Your task to perform on an android device: What's the weather today? Image 0: 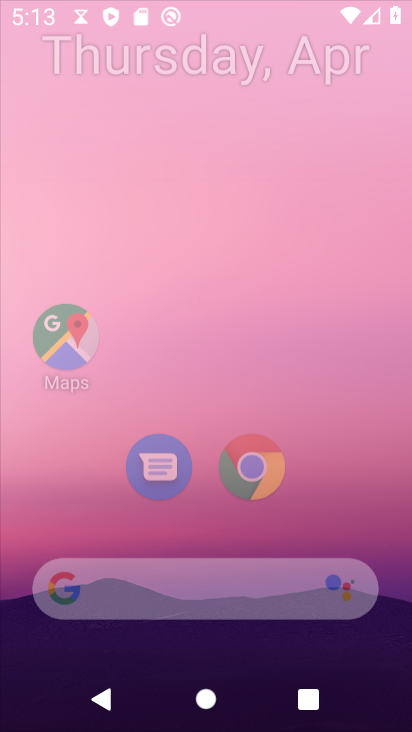
Step 0: click (309, 144)
Your task to perform on an android device: What's the weather today? Image 1: 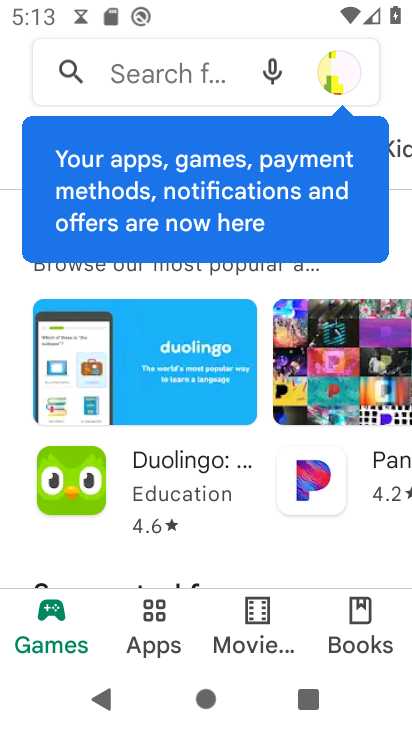
Step 1: press home button
Your task to perform on an android device: What's the weather today? Image 2: 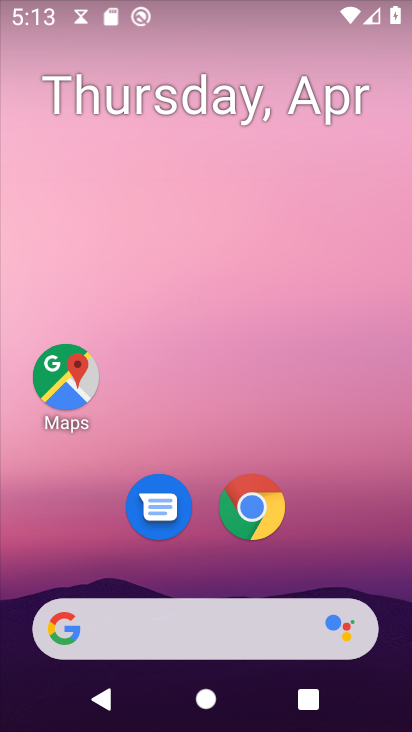
Step 2: drag from (288, 519) to (245, 174)
Your task to perform on an android device: What's the weather today? Image 3: 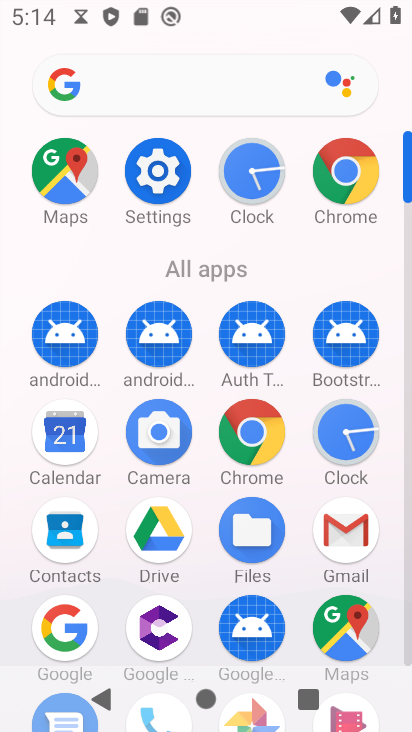
Step 3: click (63, 647)
Your task to perform on an android device: What's the weather today? Image 4: 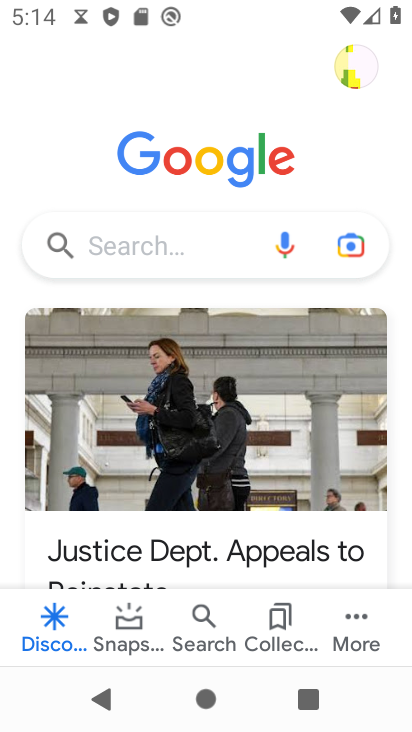
Step 4: click (122, 233)
Your task to perform on an android device: What's the weather today? Image 5: 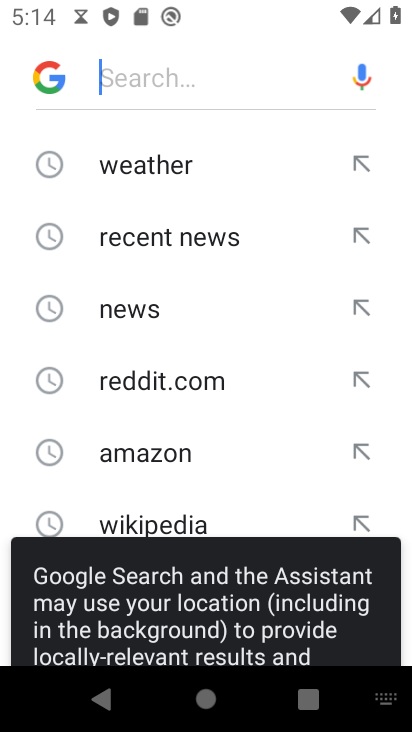
Step 5: click (134, 162)
Your task to perform on an android device: What's the weather today? Image 6: 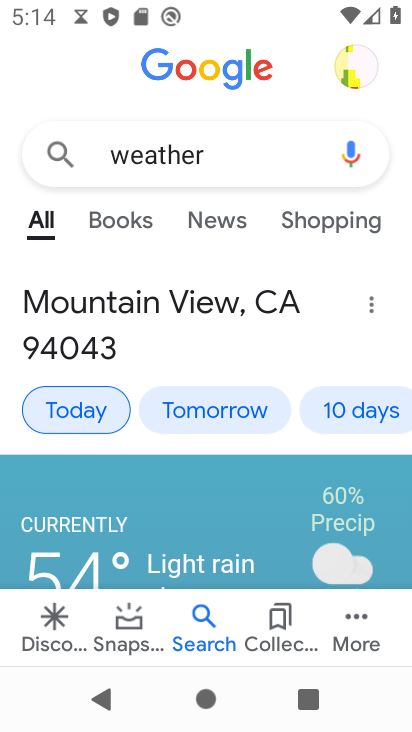
Step 6: task complete